Your task to perform on an android device: Open Google Chrome Image 0: 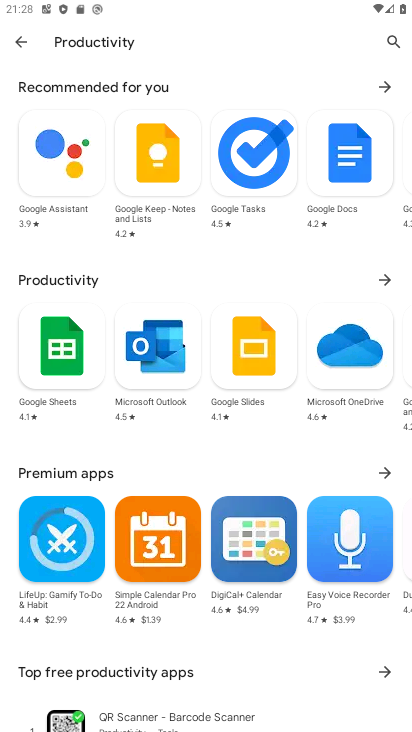
Step 0: press home button
Your task to perform on an android device: Open Google Chrome Image 1: 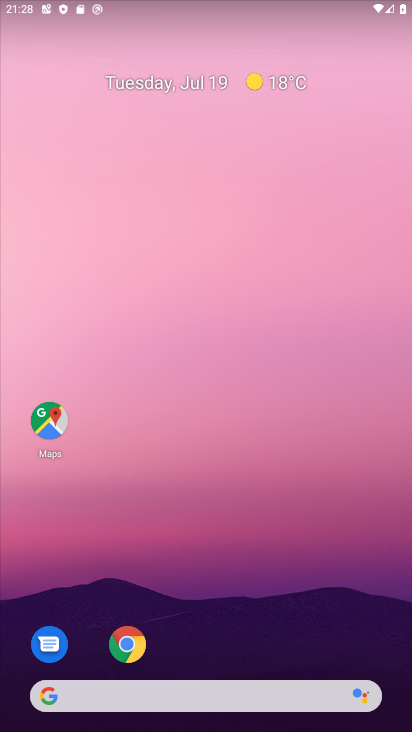
Step 1: click (114, 647)
Your task to perform on an android device: Open Google Chrome Image 2: 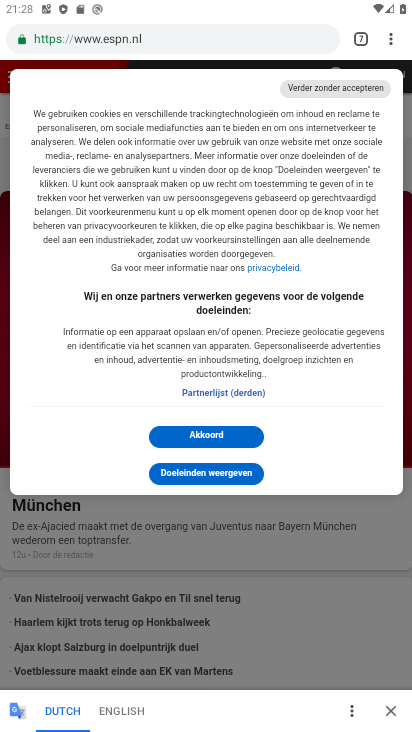
Step 2: click (199, 438)
Your task to perform on an android device: Open Google Chrome Image 3: 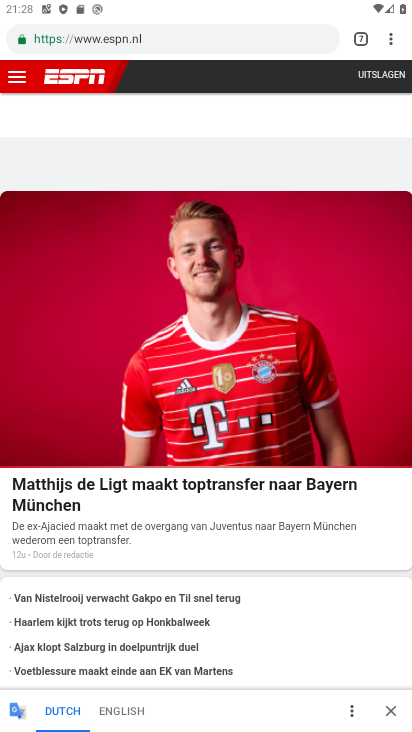
Step 3: task complete